Your task to perform on an android device: Open notification settings Image 0: 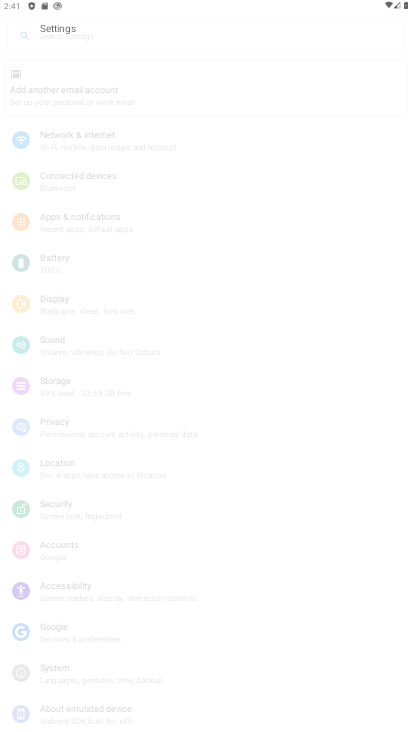
Step 0: click (188, 697)
Your task to perform on an android device: Open notification settings Image 1: 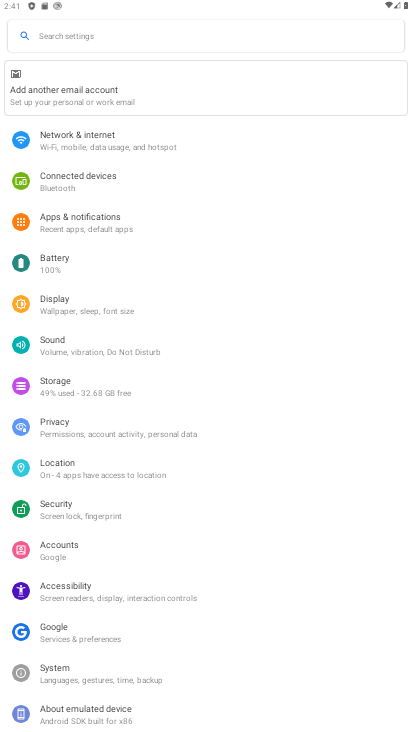
Step 1: press home button
Your task to perform on an android device: Open notification settings Image 2: 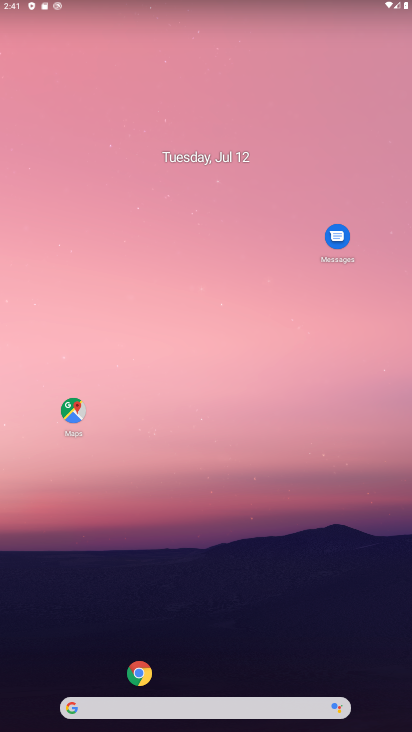
Step 2: drag from (38, 710) to (188, 157)
Your task to perform on an android device: Open notification settings Image 3: 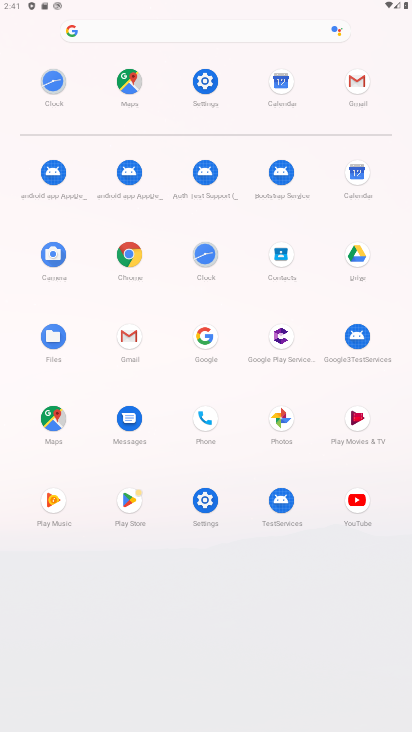
Step 3: click (202, 504)
Your task to perform on an android device: Open notification settings Image 4: 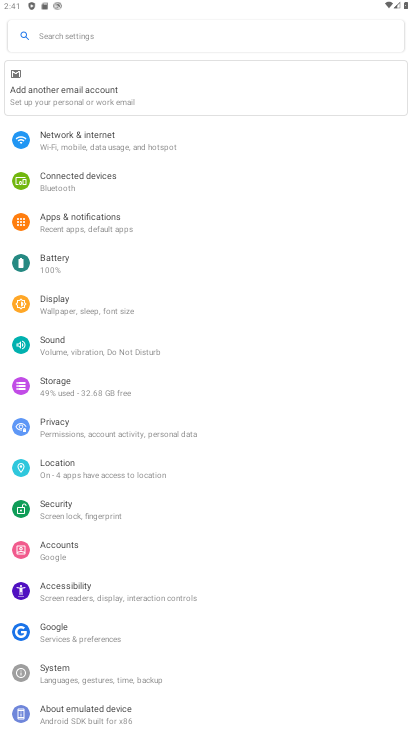
Step 4: click (75, 214)
Your task to perform on an android device: Open notification settings Image 5: 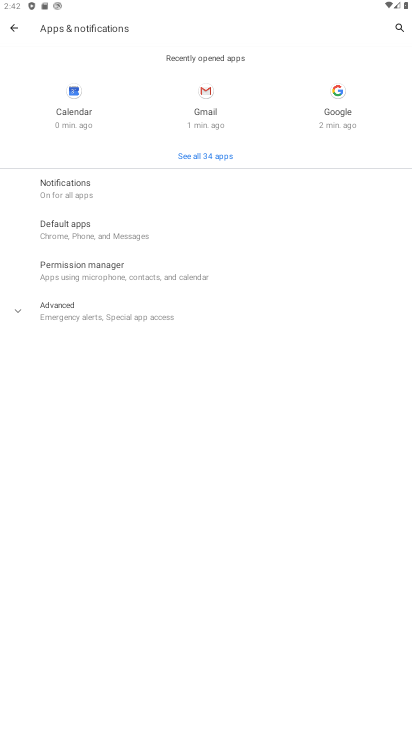
Step 5: task complete